Your task to perform on an android device: Open battery settings Image 0: 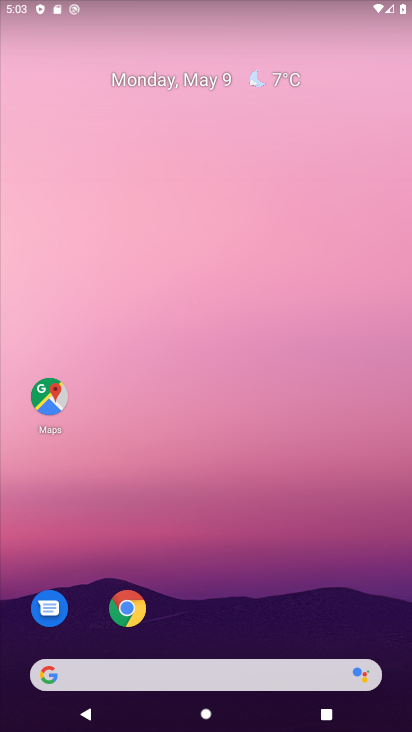
Step 0: drag from (250, 622) to (281, 19)
Your task to perform on an android device: Open battery settings Image 1: 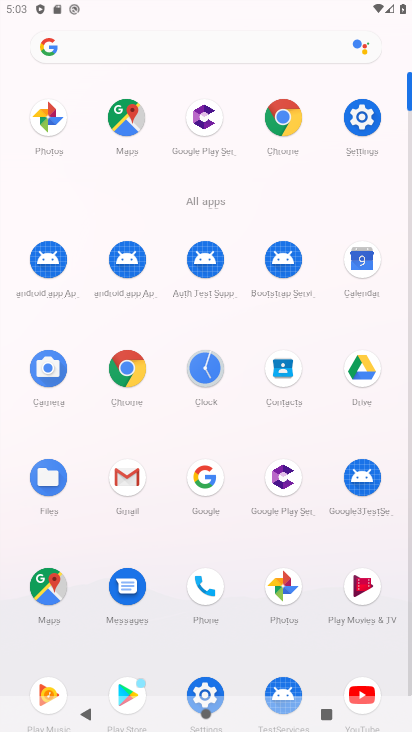
Step 1: click (363, 115)
Your task to perform on an android device: Open battery settings Image 2: 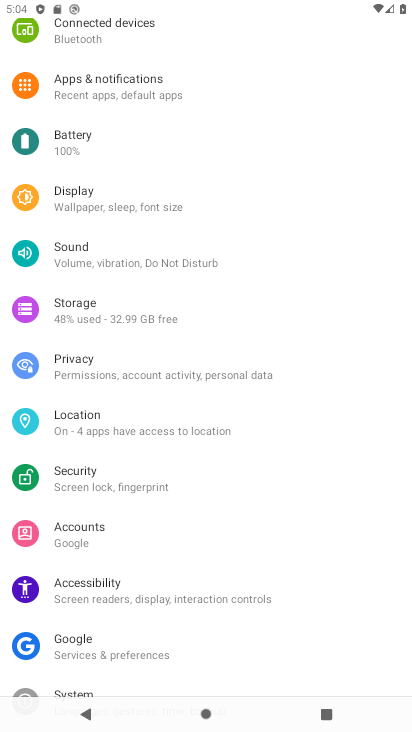
Step 2: click (108, 147)
Your task to perform on an android device: Open battery settings Image 3: 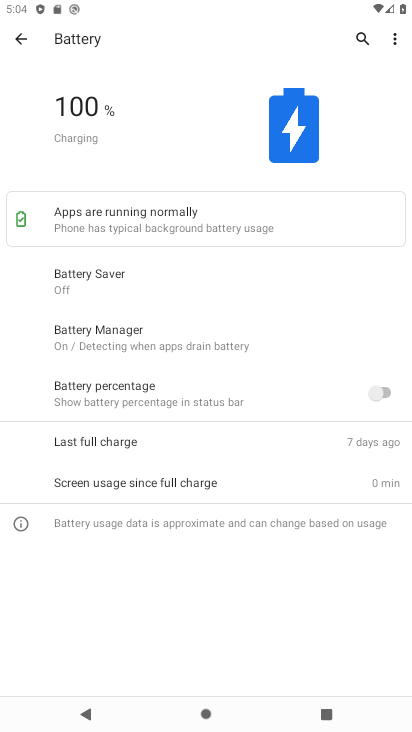
Step 3: task complete